Your task to perform on an android device: turn on wifi Image 0: 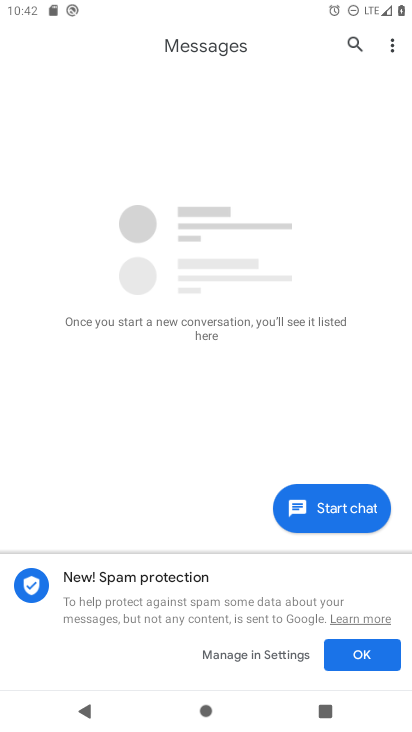
Step 0: click (165, 9)
Your task to perform on an android device: turn on wifi Image 1: 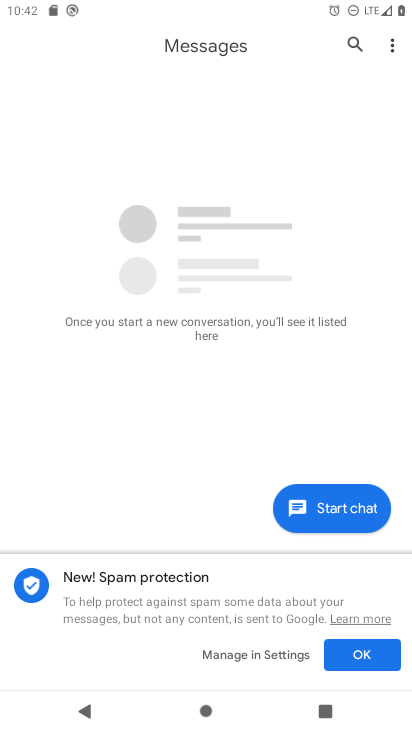
Step 1: click (165, 9)
Your task to perform on an android device: turn on wifi Image 2: 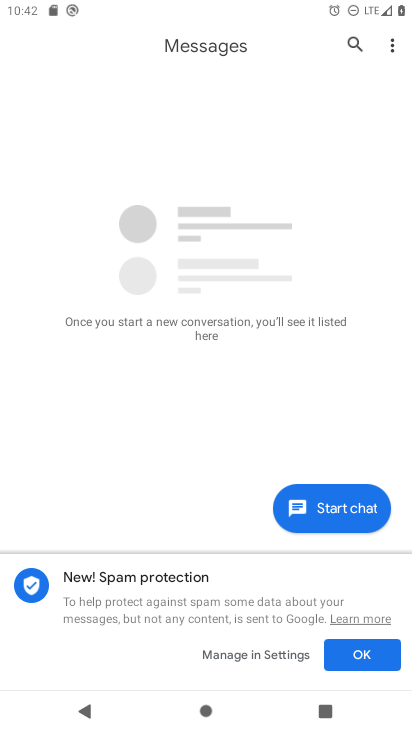
Step 2: drag from (142, 6) to (162, 593)
Your task to perform on an android device: turn on wifi Image 3: 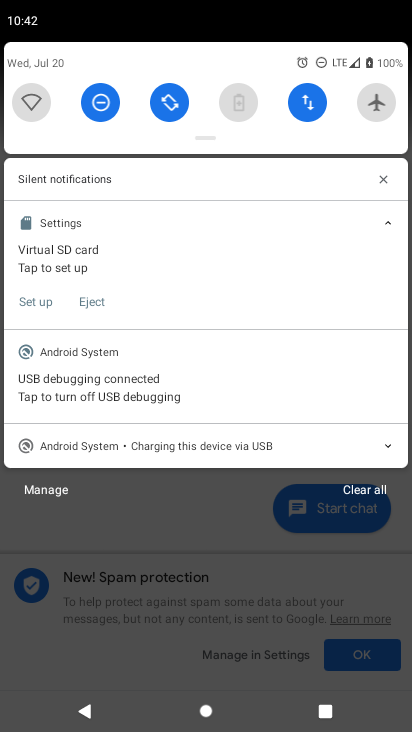
Step 3: click (27, 91)
Your task to perform on an android device: turn on wifi Image 4: 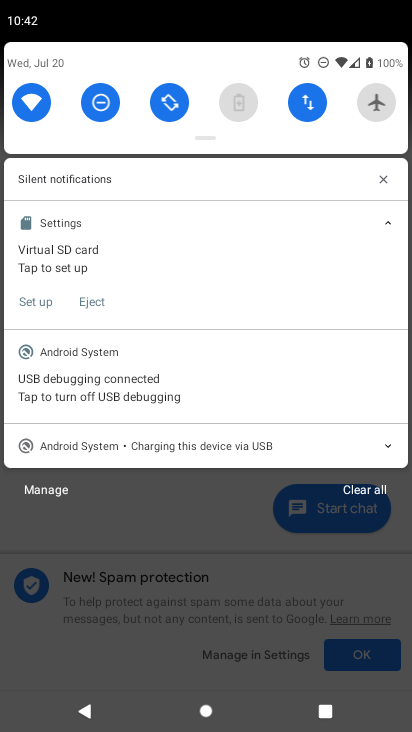
Step 4: task complete